Your task to perform on an android device: check the backup settings in the google photos Image 0: 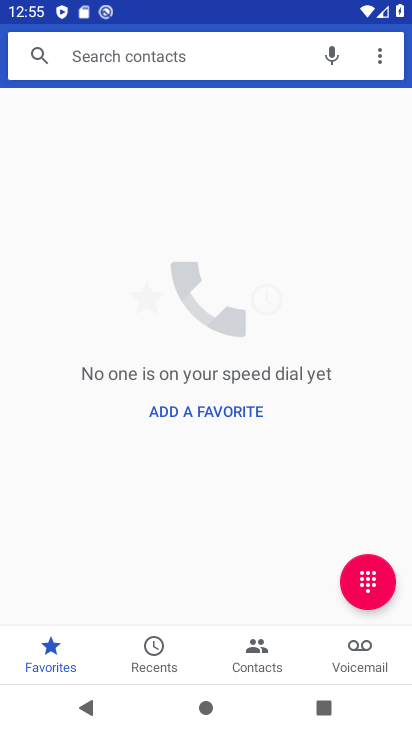
Step 0: press home button
Your task to perform on an android device: check the backup settings in the google photos Image 1: 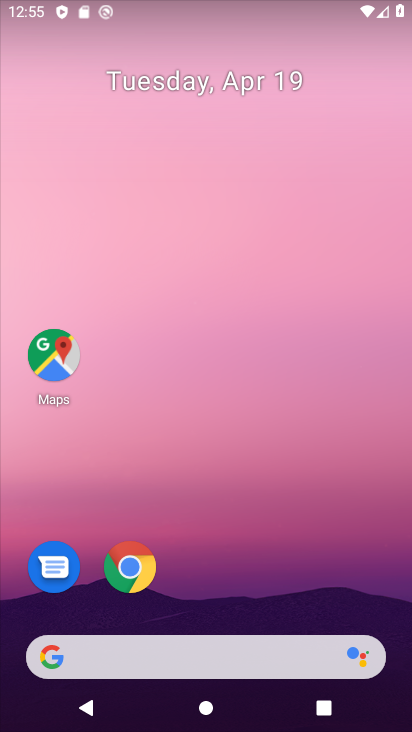
Step 1: drag from (389, 625) to (380, 46)
Your task to perform on an android device: check the backup settings in the google photos Image 2: 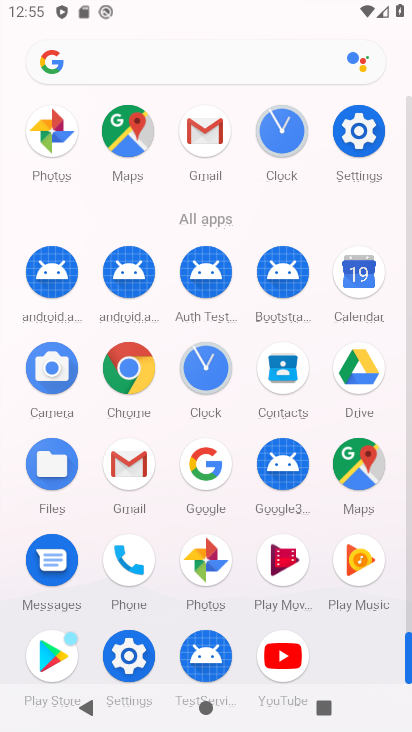
Step 2: click (207, 558)
Your task to perform on an android device: check the backup settings in the google photos Image 3: 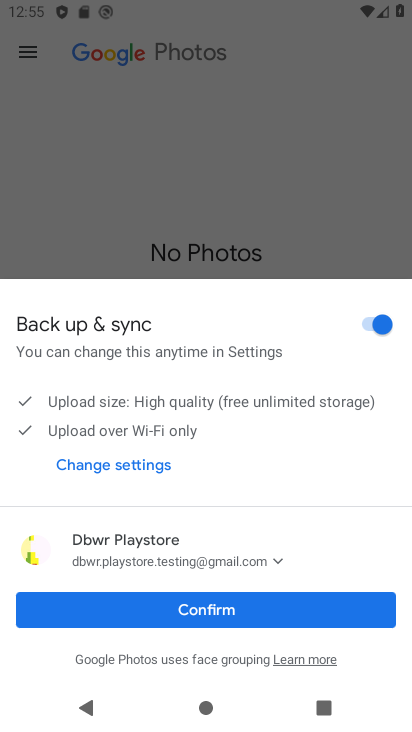
Step 3: click (201, 609)
Your task to perform on an android device: check the backup settings in the google photos Image 4: 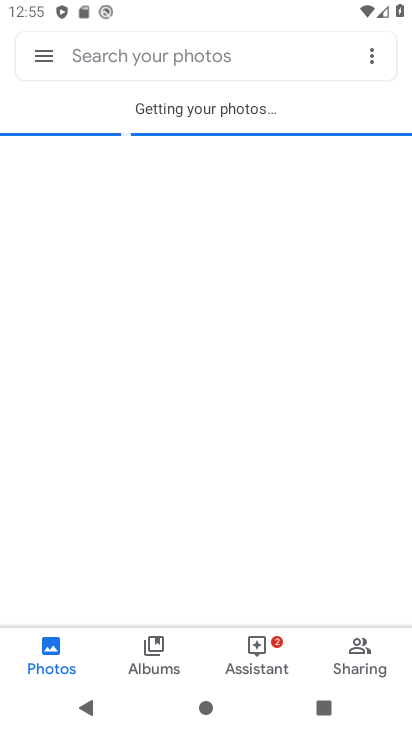
Step 4: click (41, 55)
Your task to perform on an android device: check the backup settings in the google photos Image 5: 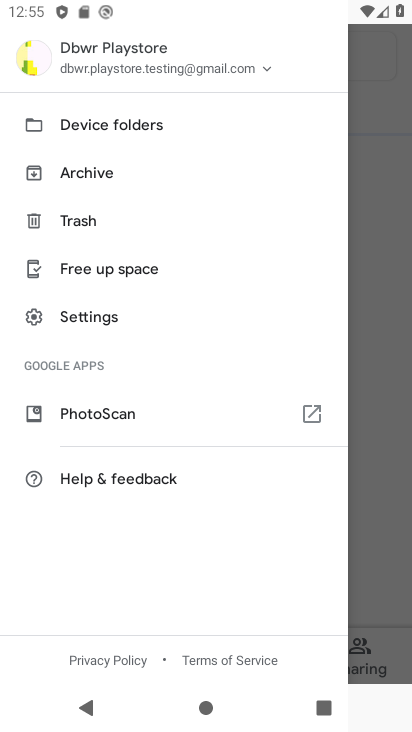
Step 5: click (91, 318)
Your task to perform on an android device: check the backup settings in the google photos Image 6: 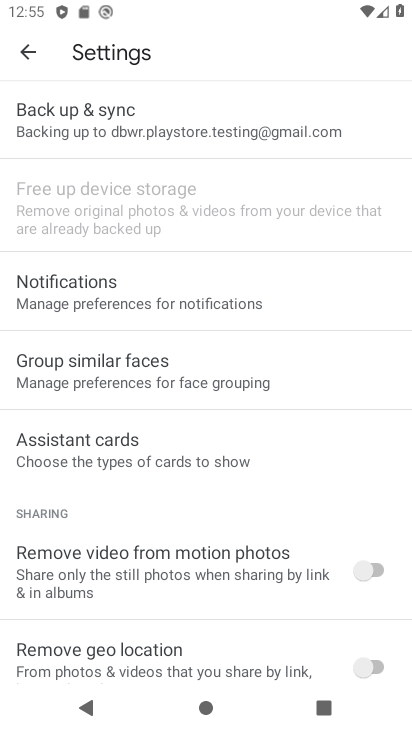
Step 6: click (89, 117)
Your task to perform on an android device: check the backup settings in the google photos Image 7: 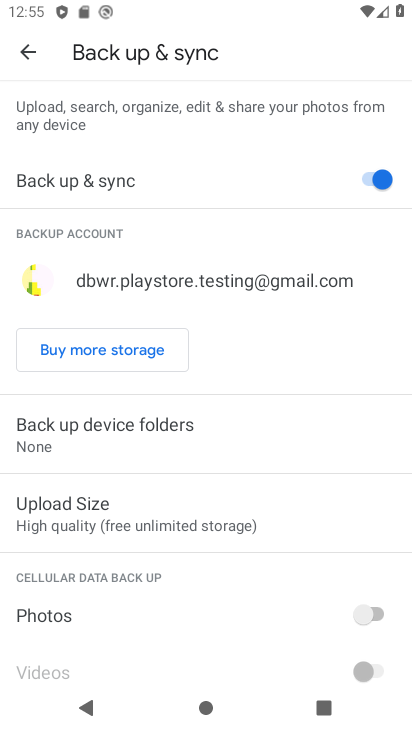
Step 7: task complete